Your task to perform on an android device: open chrome privacy settings Image 0: 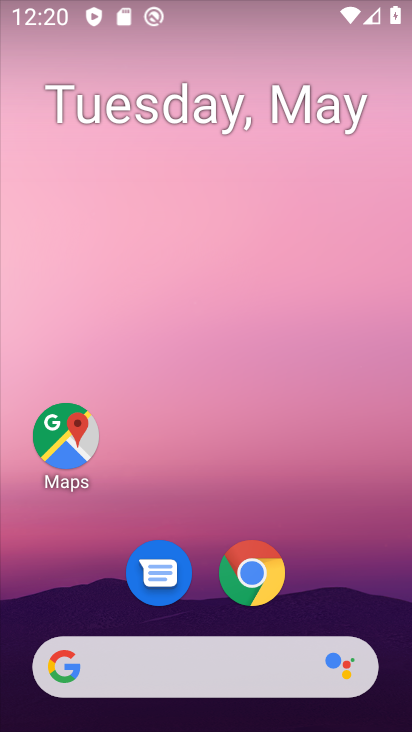
Step 0: drag from (310, 615) to (318, 178)
Your task to perform on an android device: open chrome privacy settings Image 1: 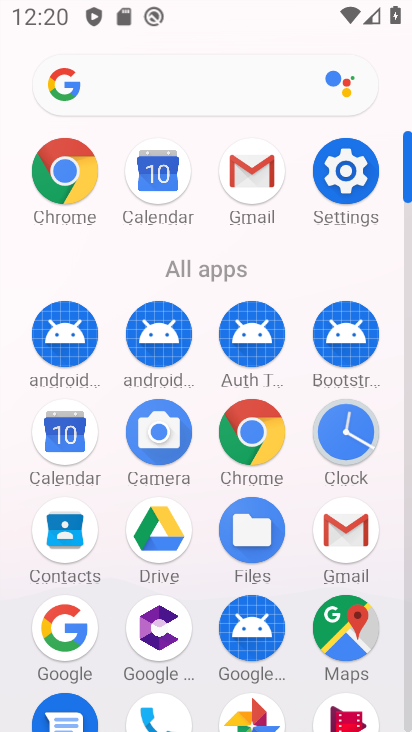
Step 1: click (360, 179)
Your task to perform on an android device: open chrome privacy settings Image 2: 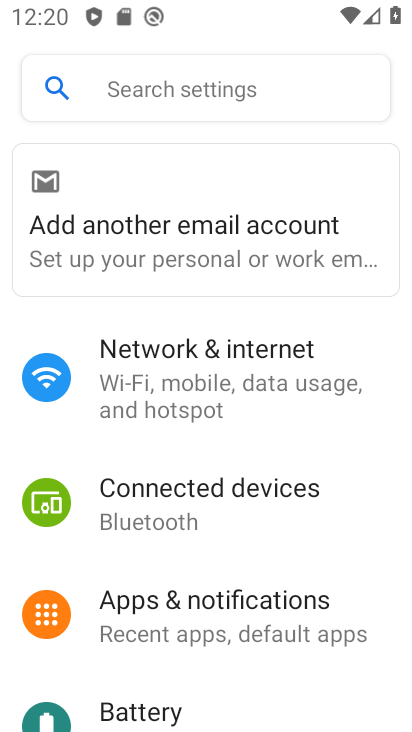
Step 2: drag from (226, 604) to (268, 261)
Your task to perform on an android device: open chrome privacy settings Image 3: 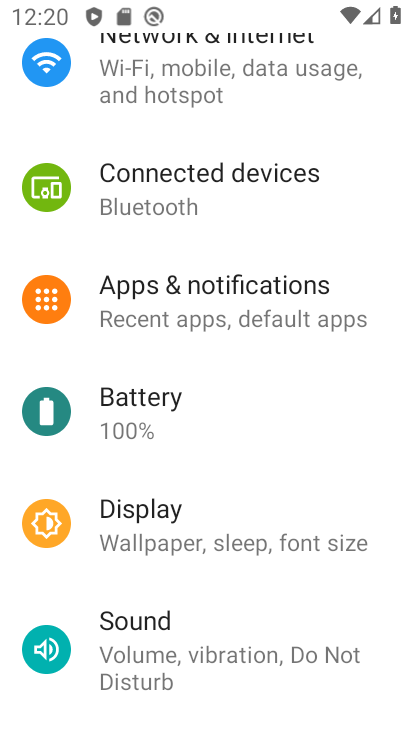
Step 3: drag from (279, 620) to (310, 362)
Your task to perform on an android device: open chrome privacy settings Image 4: 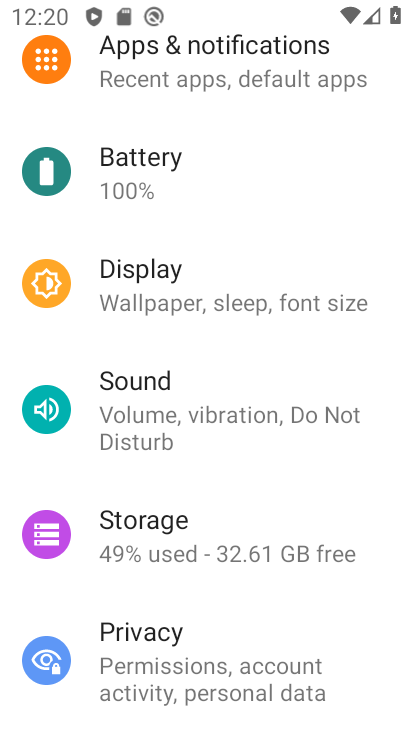
Step 4: click (186, 661)
Your task to perform on an android device: open chrome privacy settings Image 5: 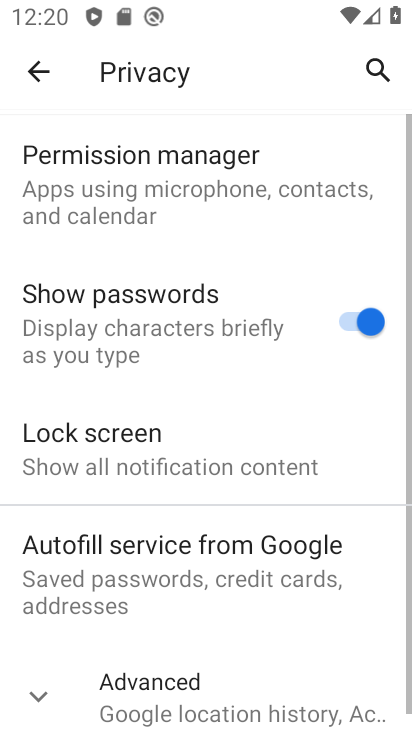
Step 5: task complete